Your task to perform on an android device: check the backup settings in the google photos Image 0: 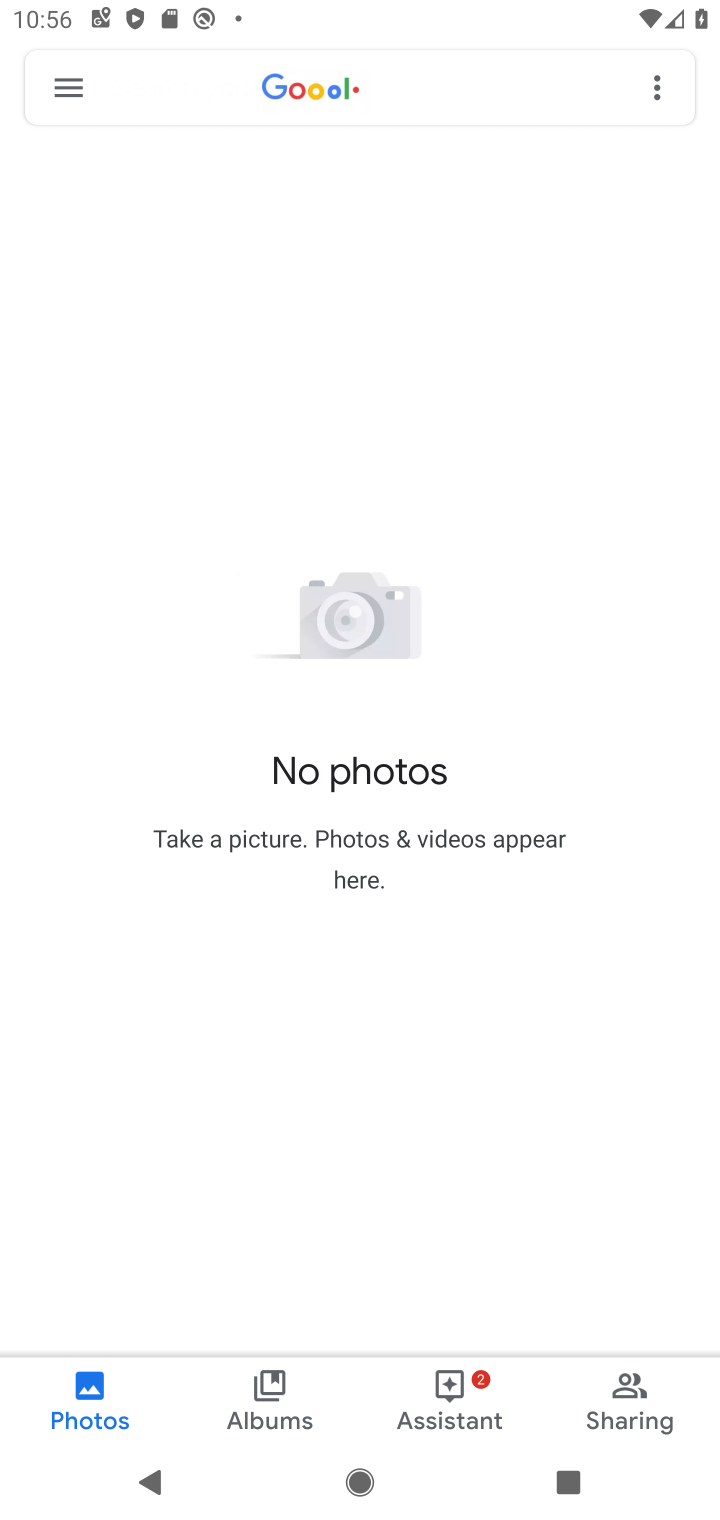
Step 0: press back button
Your task to perform on an android device: check the backup settings in the google photos Image 1: 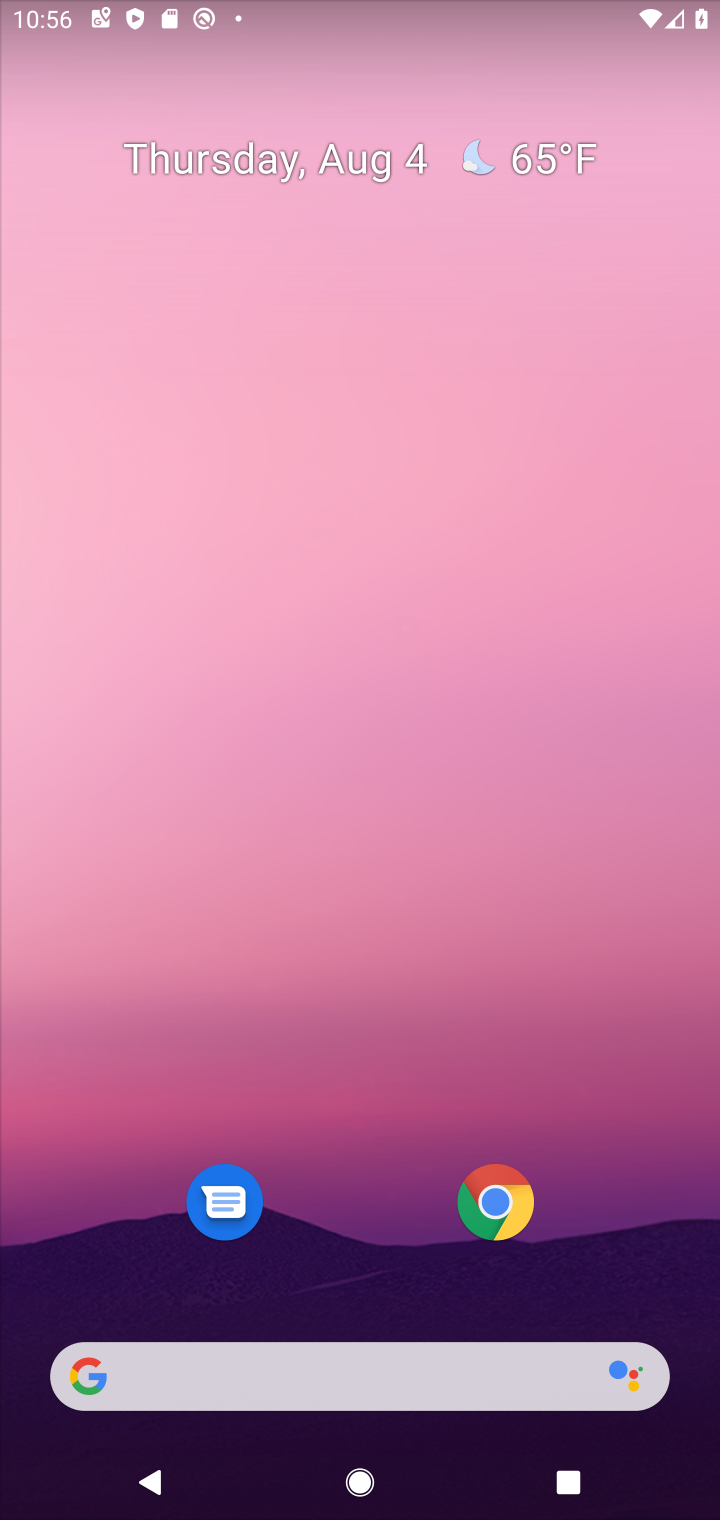
Step 1: drag from (367, 1230) to (359, 77)
Your task to perform on an android device: check the backup settings in the google photos Image 2: 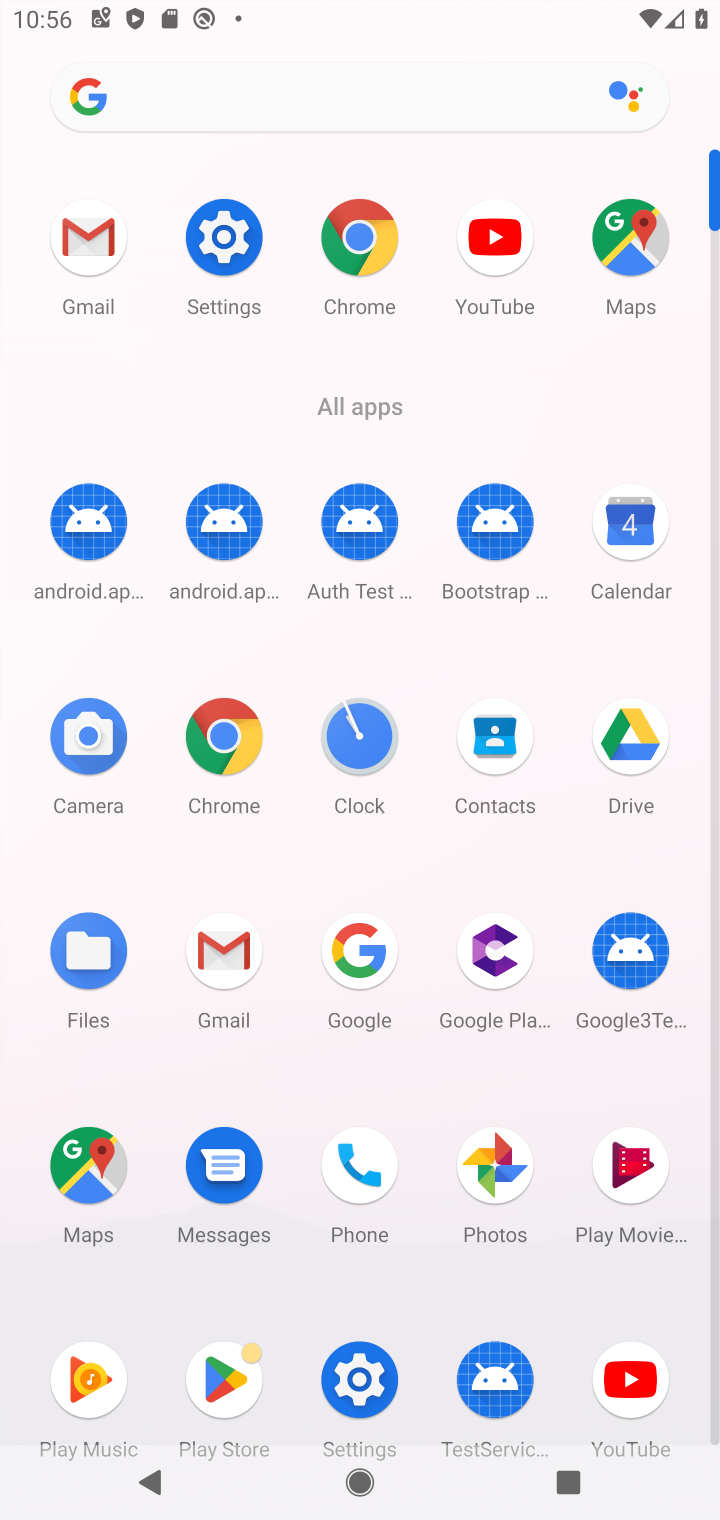
Step 2: click (523, 1173)
Your task to perform on an android device: check the backup settings in the google photos Image 3: 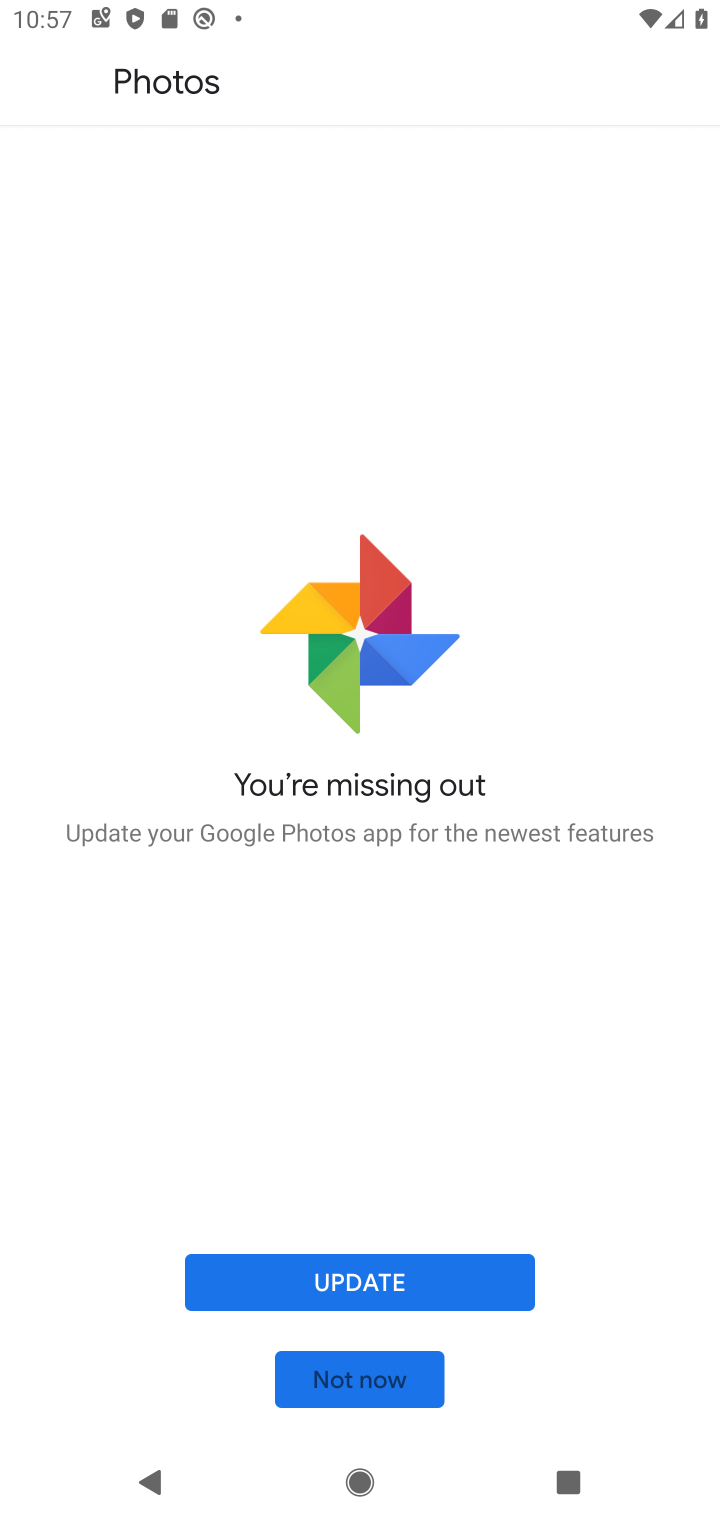
Step 3: click (366, 1385)
Your task to perform on an android device: check the backup settings in the google photos Image 4: 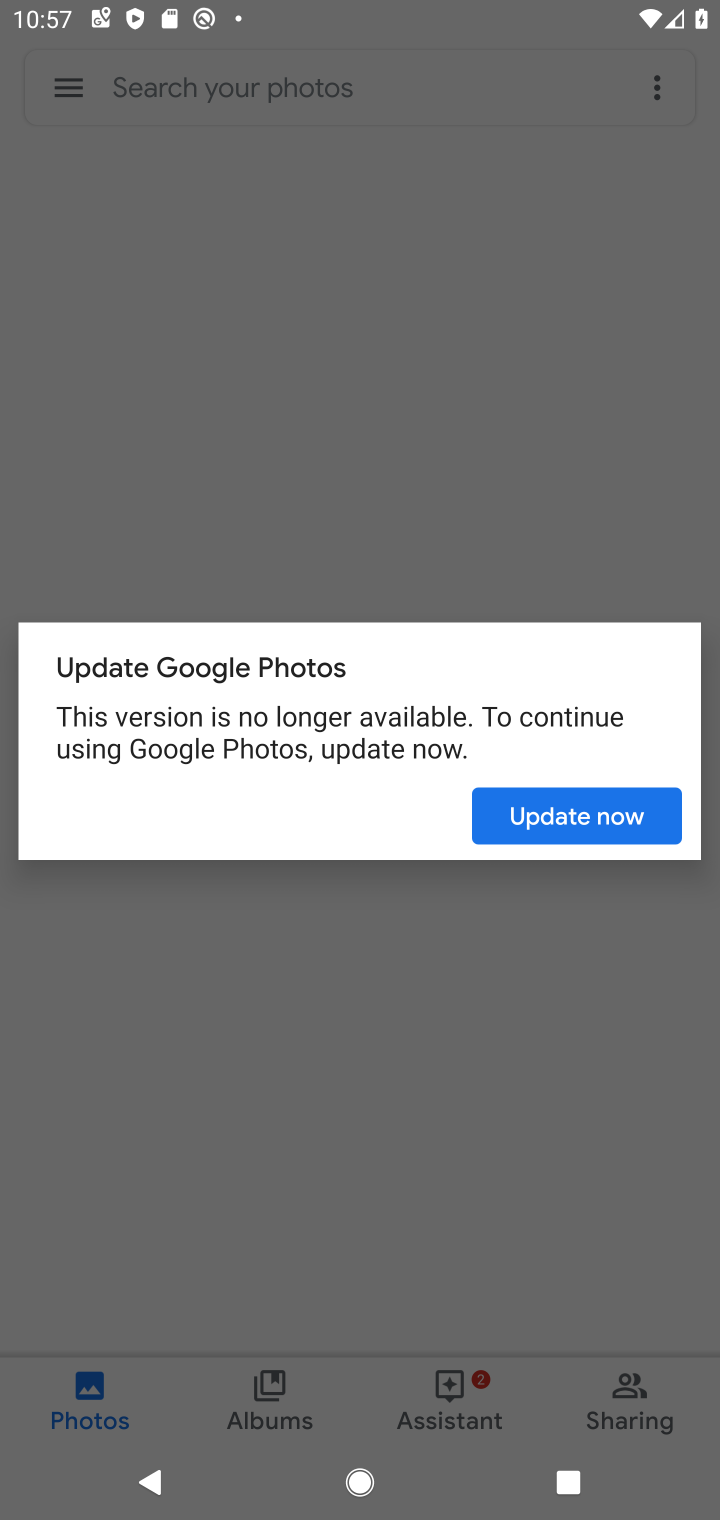
Step 4: click (592, 817)
Your task to perform on an android device: check the backup settings in the google photos Image 5: 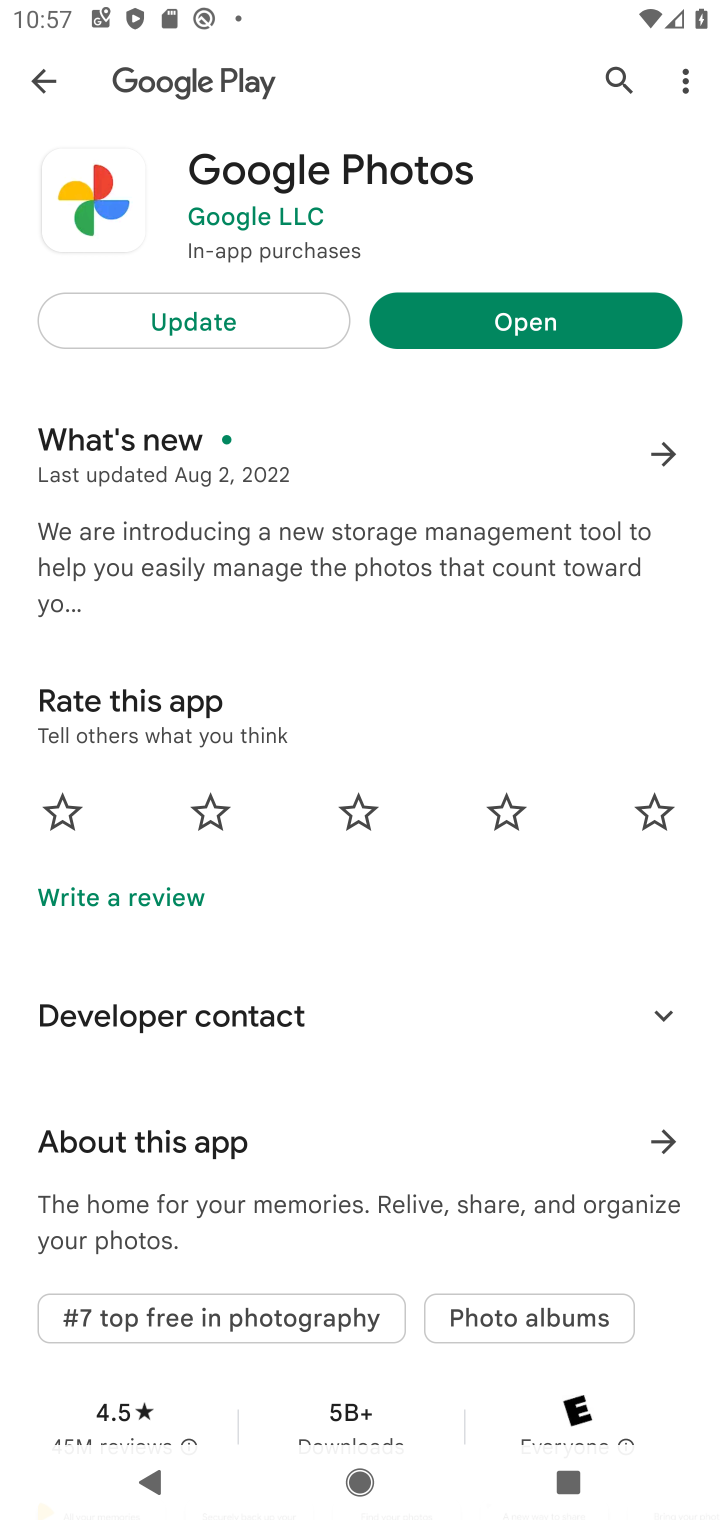
Step 5: click (538, 314)
Your task to perform on an android device: check the backup settings in the google photos Image 6: 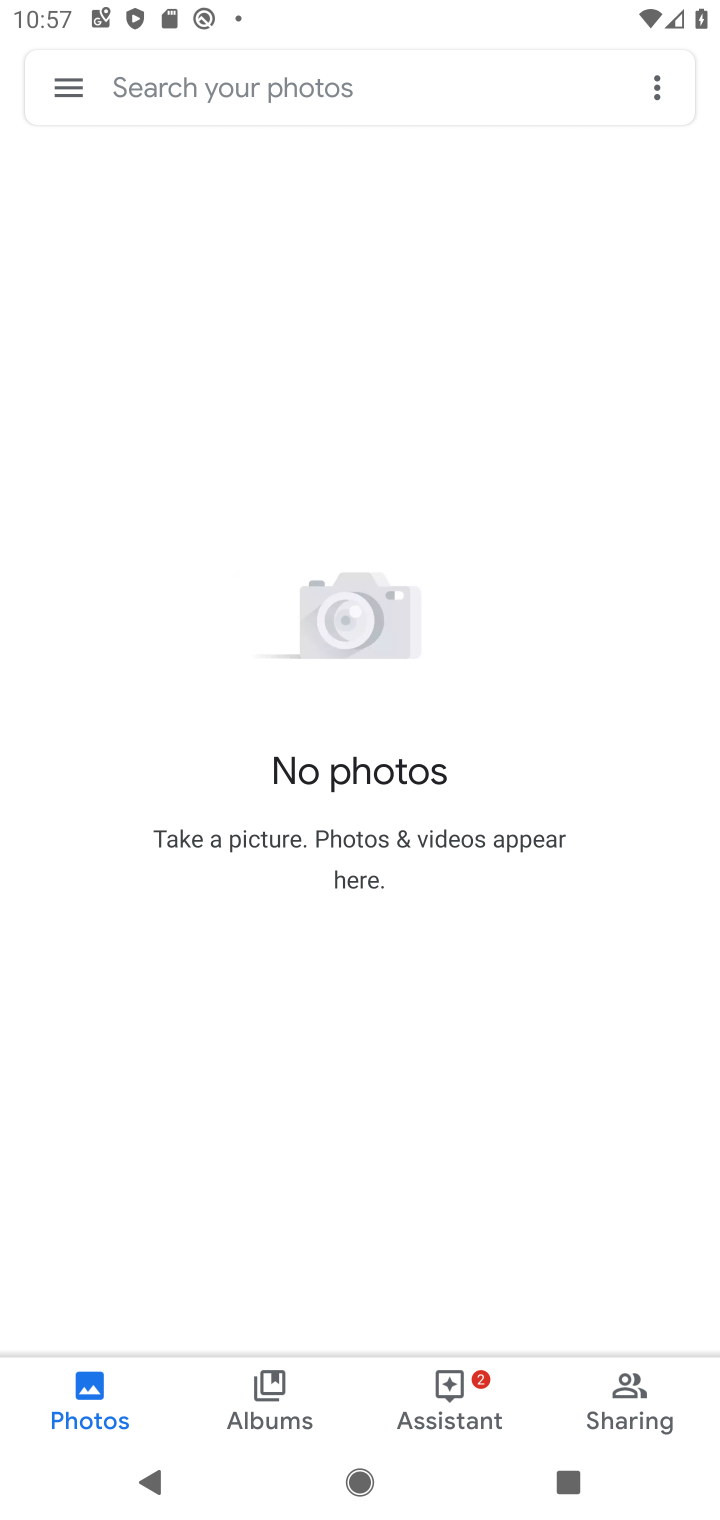
Step 6: click (85, 76)
Your task to perform on an android device: check the backup settings in the google photos Image 7: 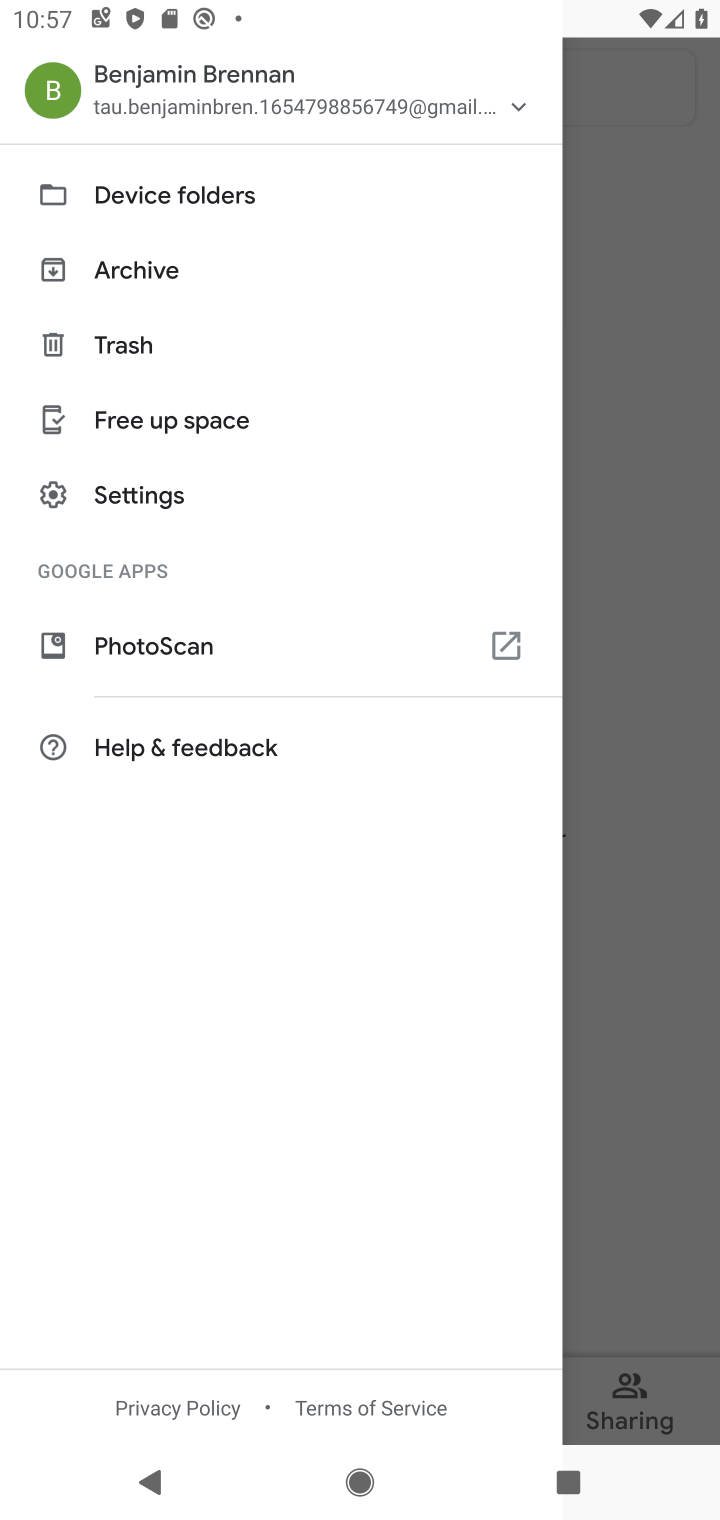
Step 7: click (196, 487)
Your task to perform on an android device: check the backup settings in the google photos Image 8: 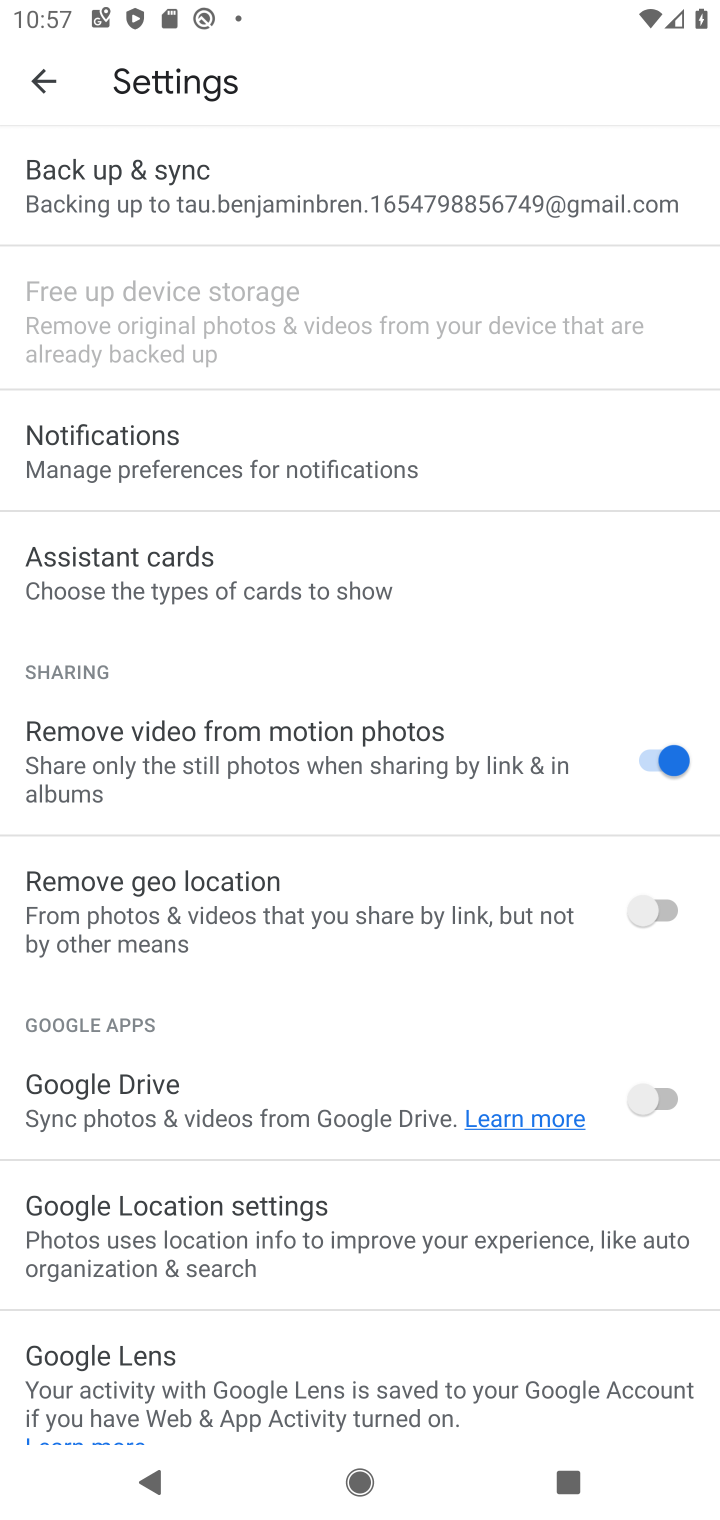
Step 8: click (249, 187)
Your task to perform on an android device: check the backup settings in the google photos Image 9: 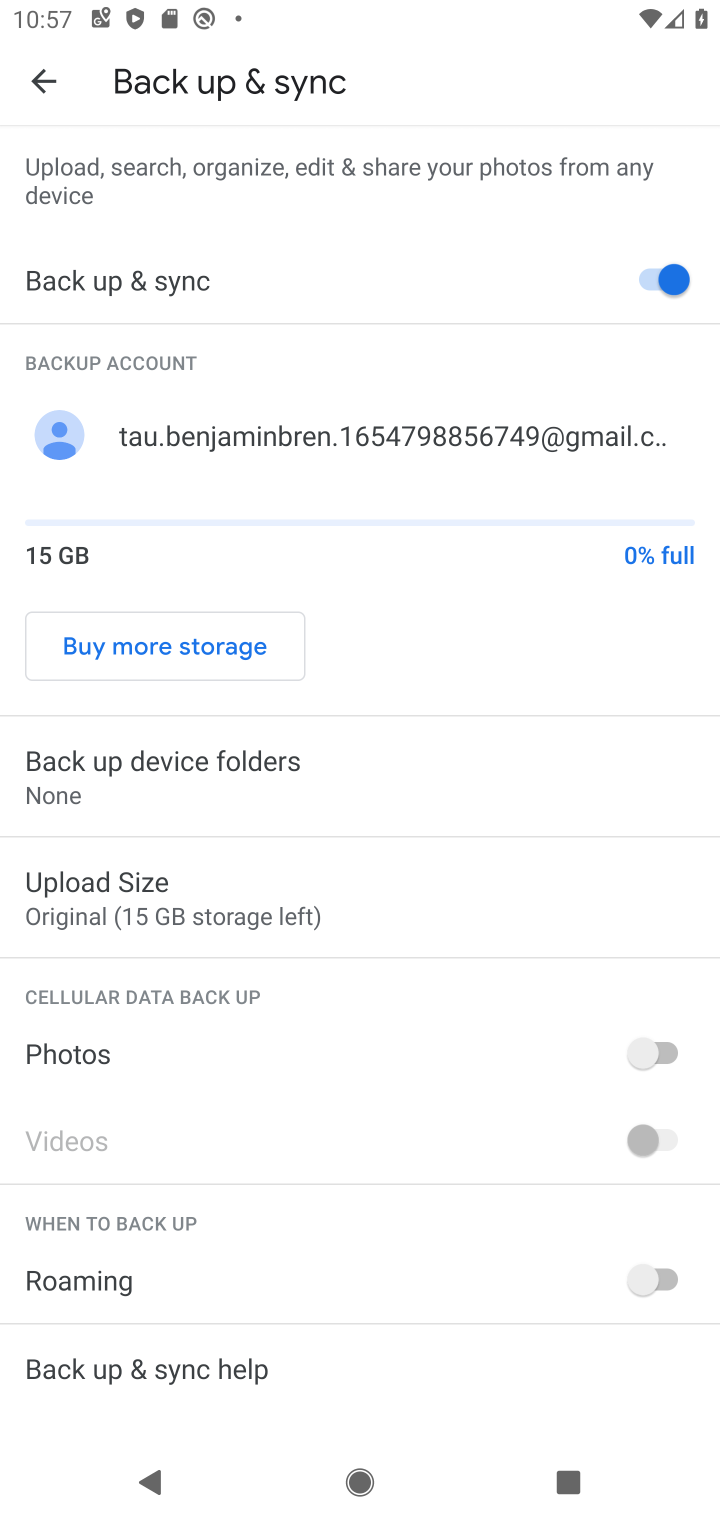
Step 9: task complete